Your task to perform on an android device: Show me recent news Image 0: 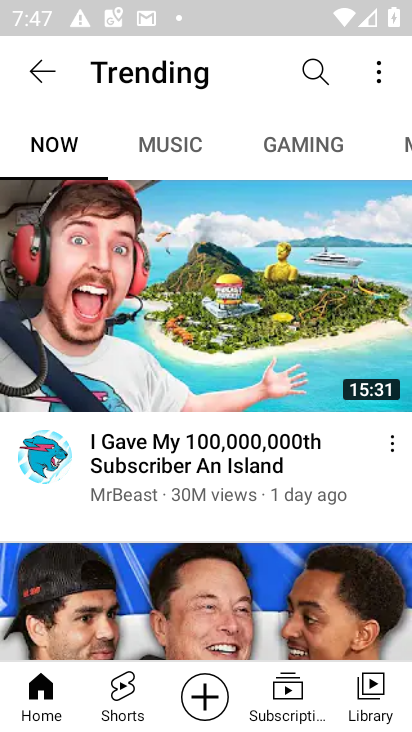
Step 0: press home button
Your task to perform on an android device: Show me recent news Image 1: 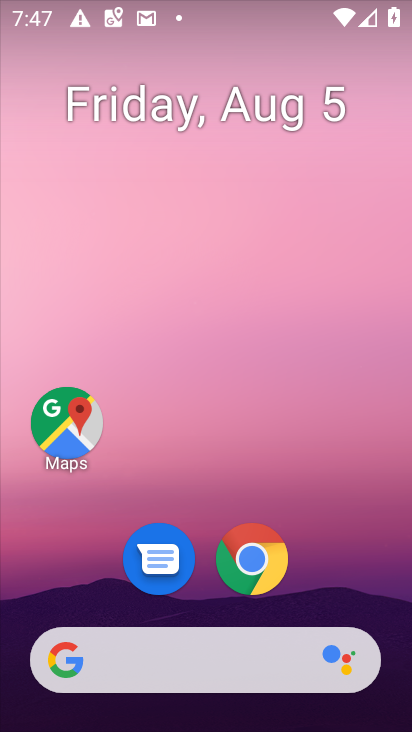
Step 1: click (185, 683)
Your task to perform on an android device: Show me recent news Image 2: 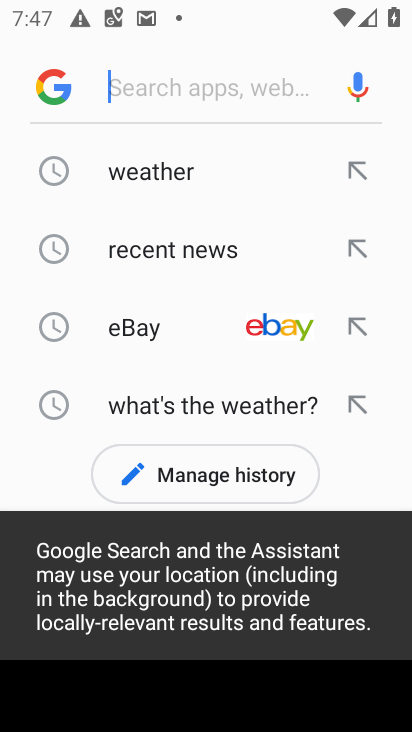
Step 2: click (165, 251)
Your task to perform on an android device: Show me recent news Image 3: 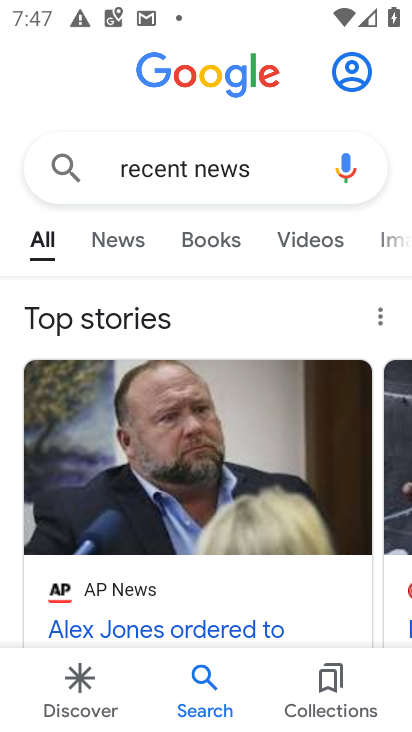
Step 3: task complete